Your task to perform on an android device: Open eBay Image 0: 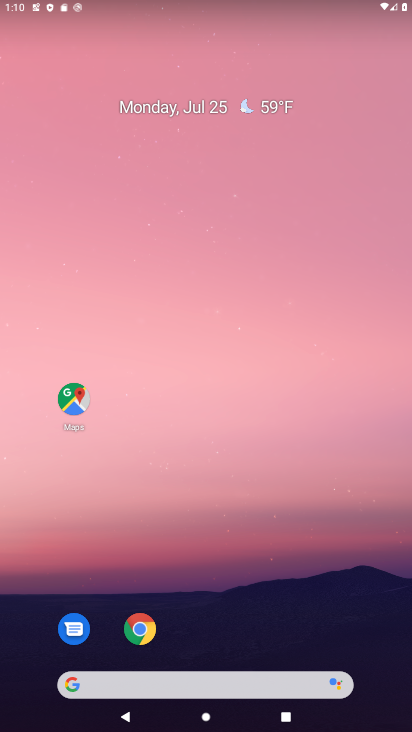
Step 0: click (144, 629)
Your task to perform on an android device: Open eBay Image 1: 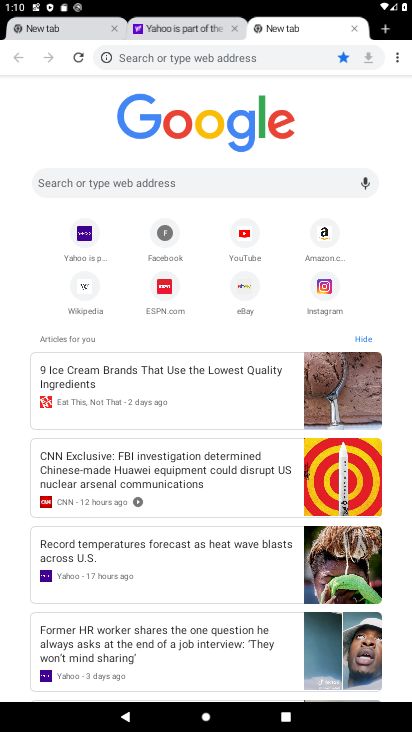
Step 1: click (245, 280)
Your task to perform on an android device: Open eBay Image 2: 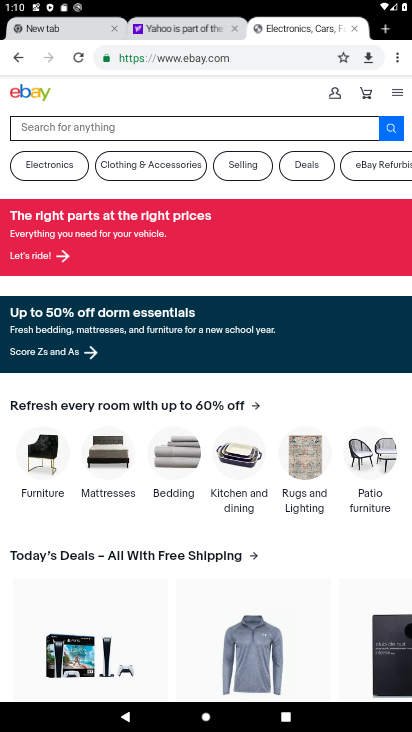
Step 2: task complete